Your task to perform on an android device: Is it going to rain today? Image 0: 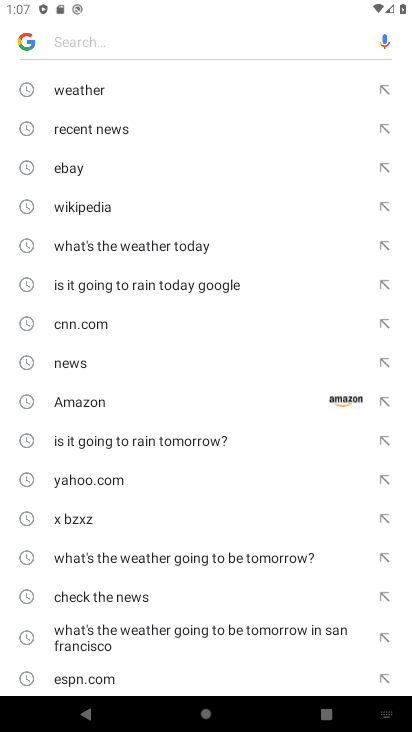
Step 0: press home button
Your task to perform on an android device: Is it going to rain today? Image 1: 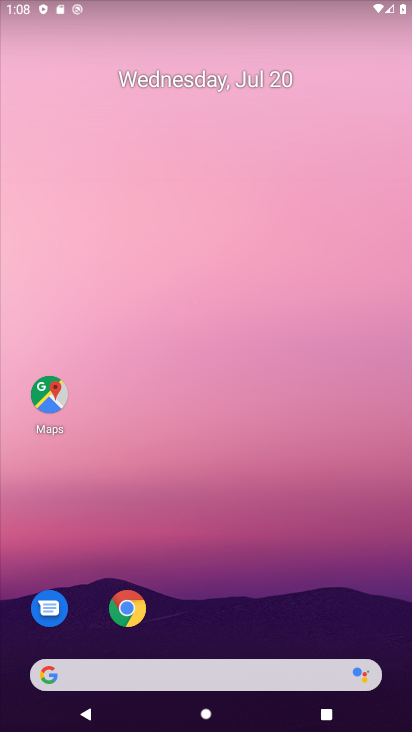
Step 1: drag from (282, 550) to (11, 18)
Your task to perform on an android device: Is it going to rain today? Image 2: 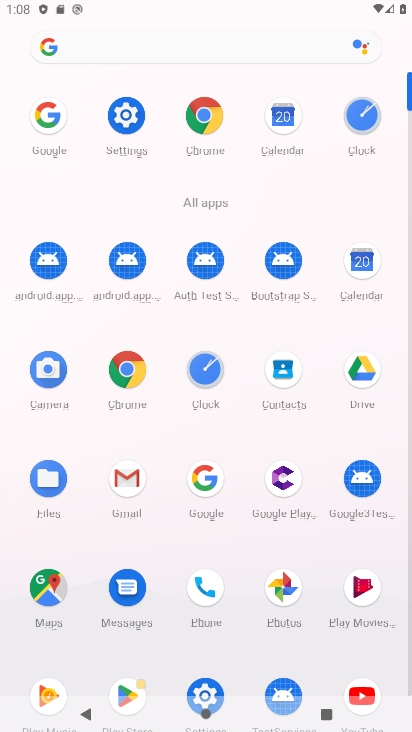
Step 2: click (209, 473)
Your task to perform on an android device: Is it going to rain today? Image 3: 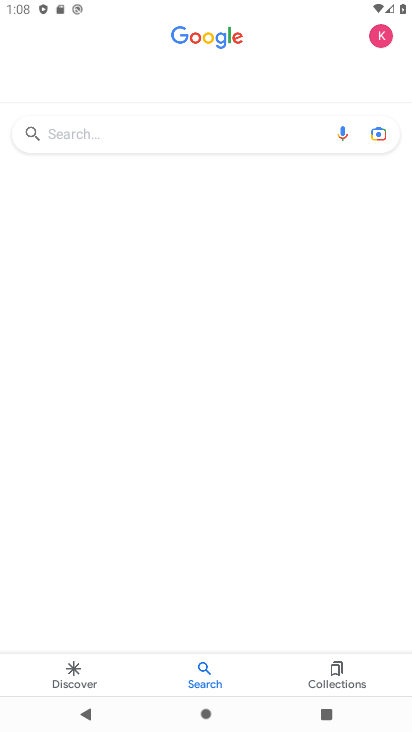
Step 3: click (176, 120)
Your task to perform on an android device: Is it going to rain today? Image 4: 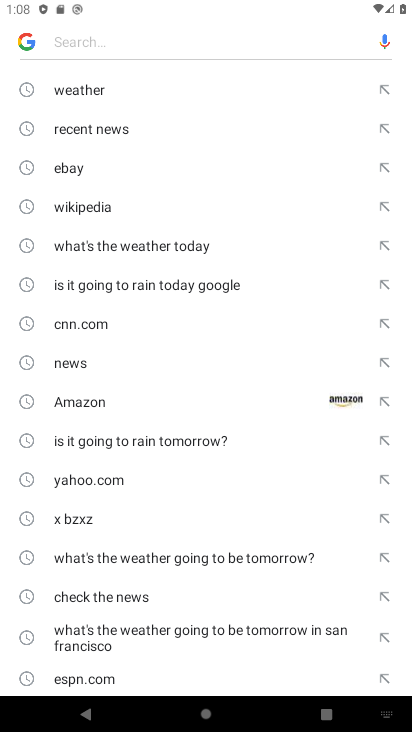
Step 4: click (65, 95)
Your task to perform on an android device: Is it going to rain today? Image 5: 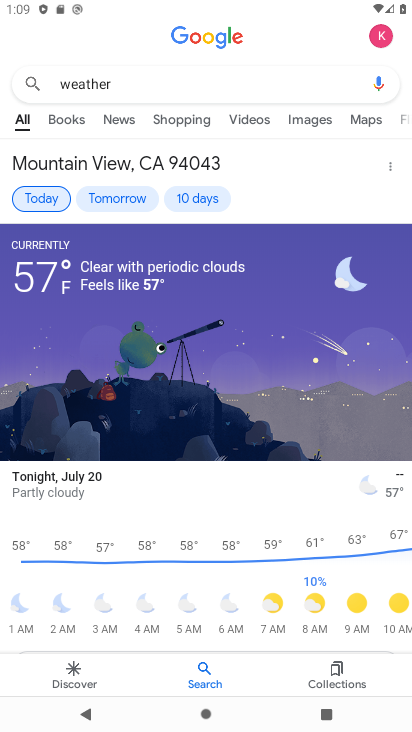
Step 5: task complete